Your task to perform on an android device: Open Reddit.com Image 0: 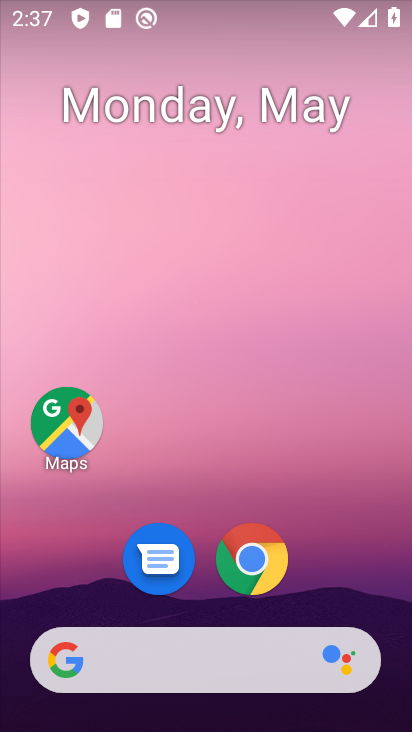
Step 0: click (278, 567)
Your task to perform on an android device: Open Reddit.com Image 1: 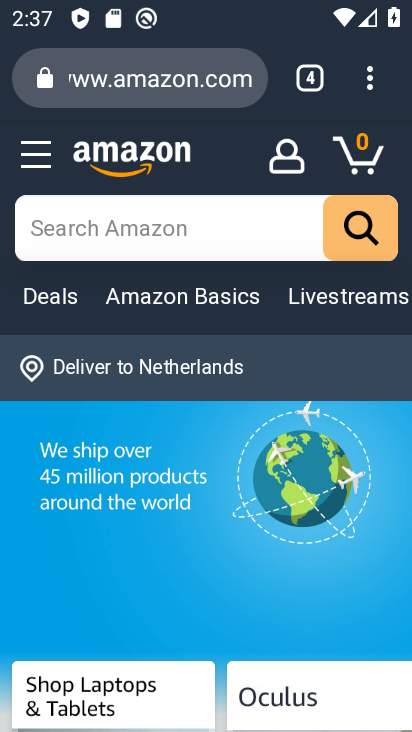
Step 1: click (214, 88)
Your task to perform on an android device: Open Reddit.com Image 2: 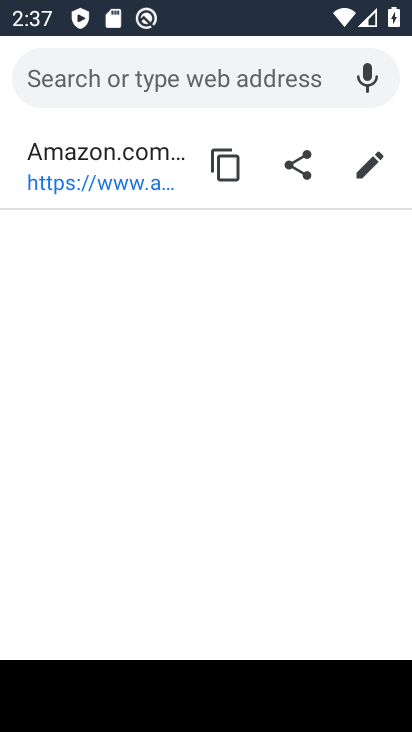
Step 2: type "Reddit.com"
Your task to perform on an android device: Open Reddit.com Image 3: 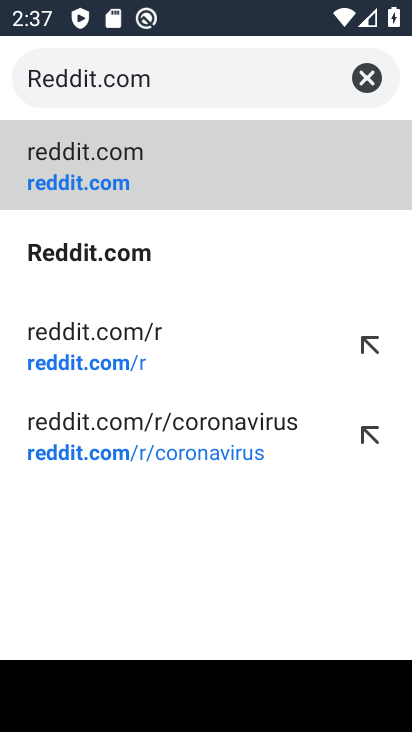
Step 3: click (121, 183)
Your task to perform on an android device: Open Reddit.com Image 4: 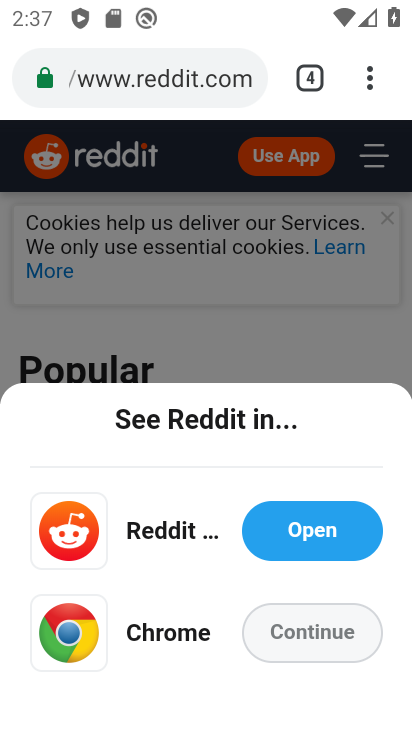
Step 4: click (333, 643)
Your task to perform on an android device: Open Reddit.com Image 5: 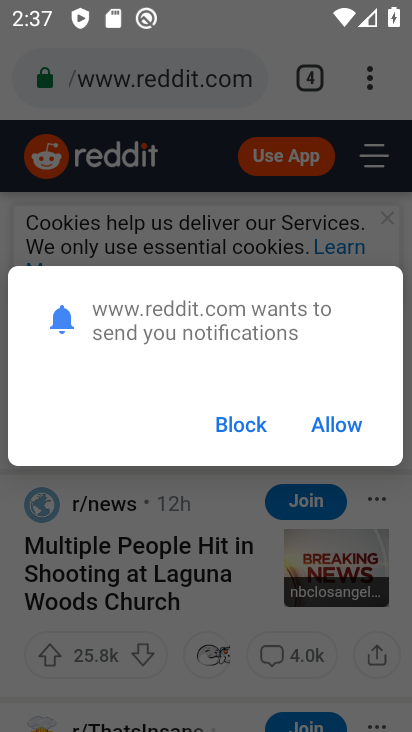
Step 5: click (268, 421)
Your task to perform on an android device: Open Reddit.com Image 6: 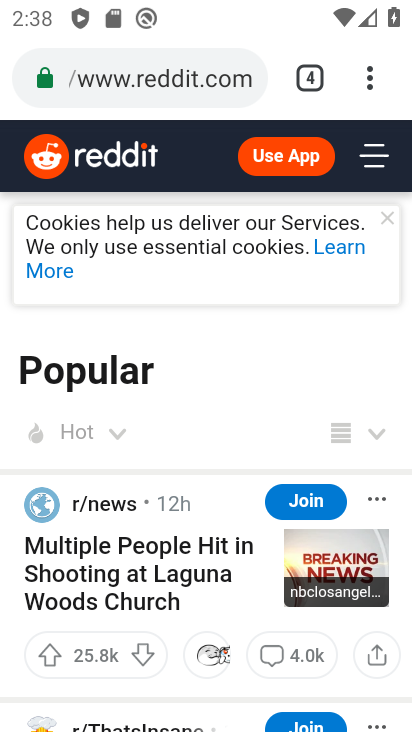
Step 6: task complete